Your task to perform on an android device: Turn off the flashlight Image 0: 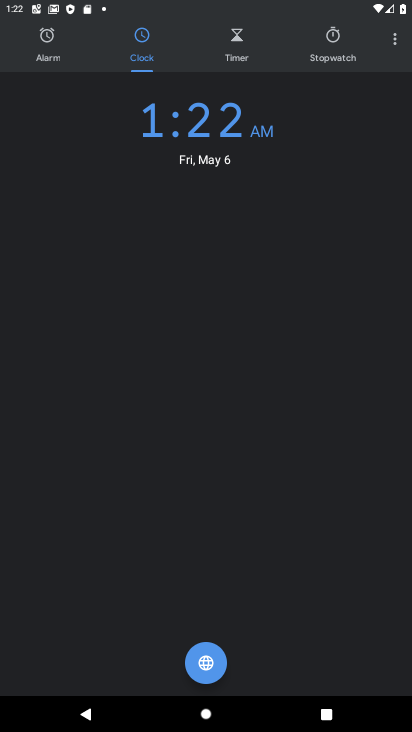
Step 0: press home button
Your task to perform on an android device: Turn off the flashlight Image 1: 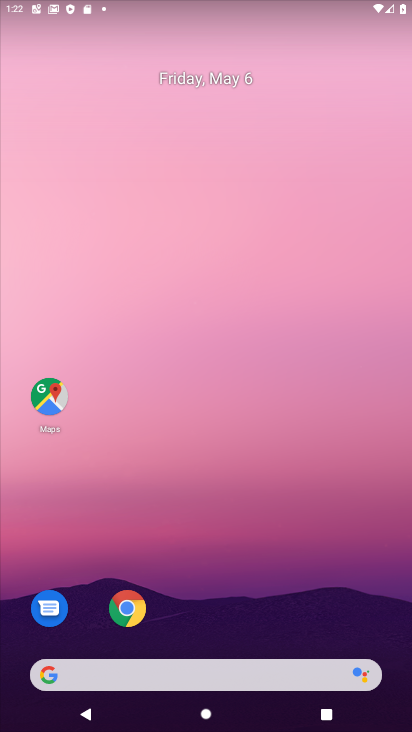
Step 1: drag from (177, 649) to (170, 188)
Your task to perform on an android device: Turn off the flashlight Image 2: 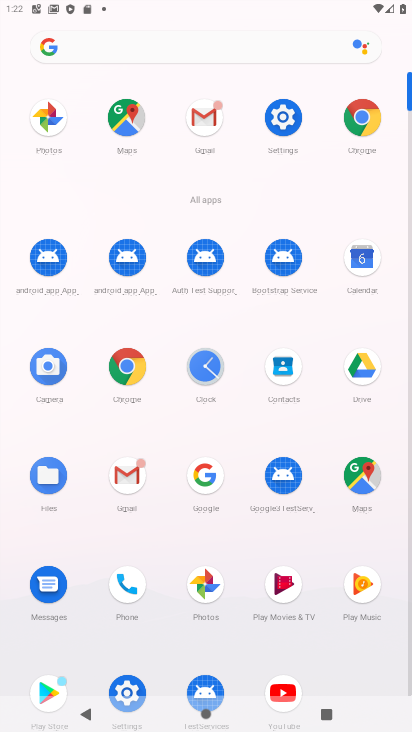
Step 2: click (290, 118)
Your task to perform on an android device: Turn off the flashlight Image 3: 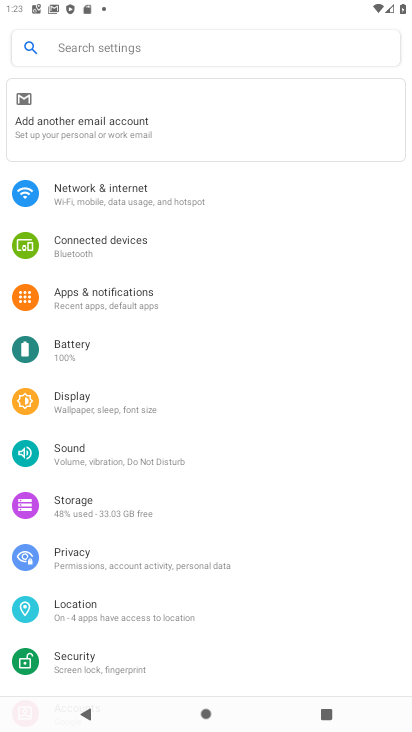
Step 3: drag from (165, 621) to (203, 291)
Your task to perform on an android device: Turn off the flashlight Image 4: 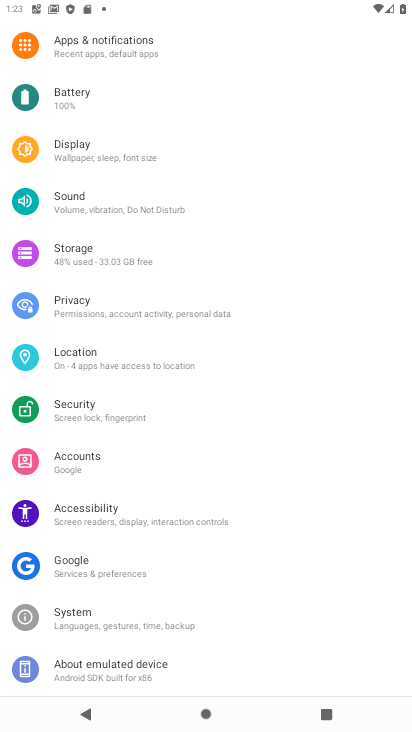
Step 4: drag from (108, 110) to (89, 572)
Your task to perform on an android device: Turn off the flashlight Image 5: 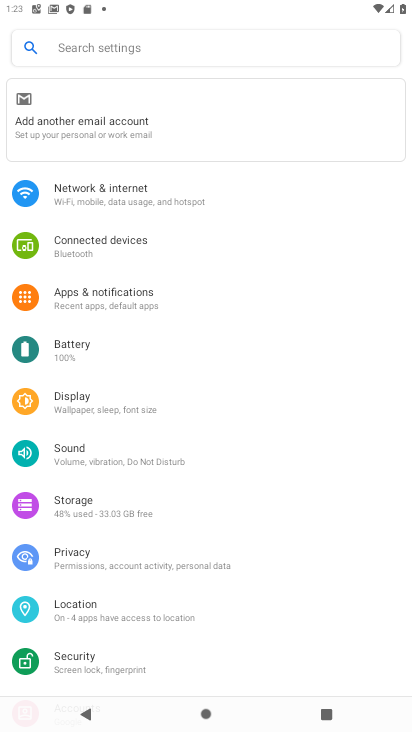
Step 5: click (115, 292)
Your task to perform on an android device: Turn off the flashlight Image 6: 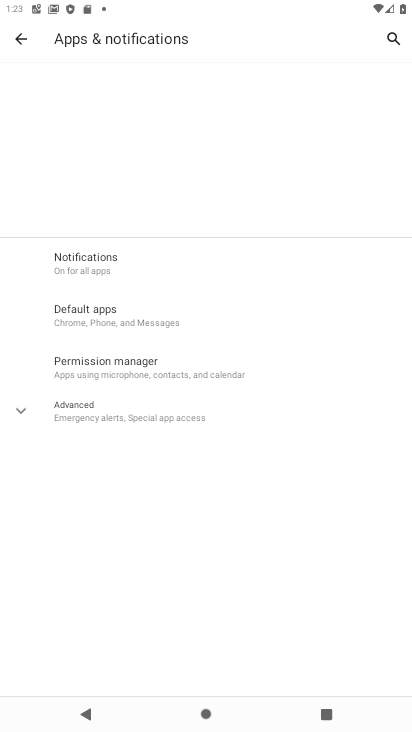
Step 6: task complete